Your task to perform on an android device: delete browsing data in the chrome app Image 0: 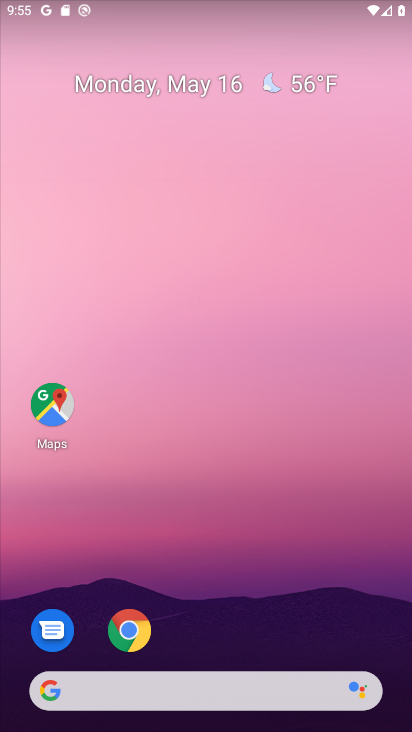
Step 0: click (128, 629)
Your task to perform on an android device: delete browsing data in the chrome app Image 1: 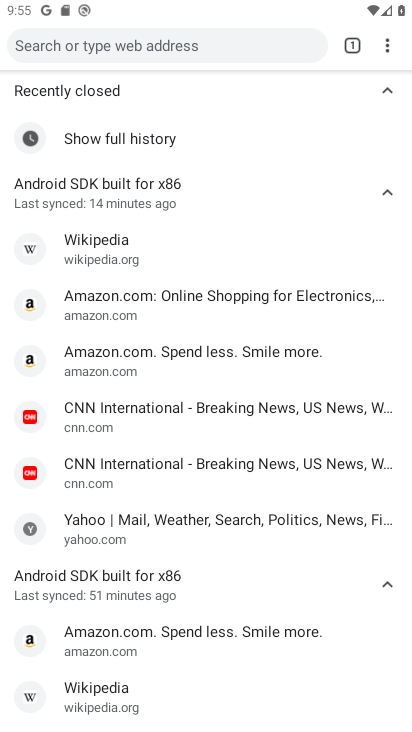
Step 1: click (385, 45)
Your task to perform on an android device: delete browsing data in the chrome app Image 2: 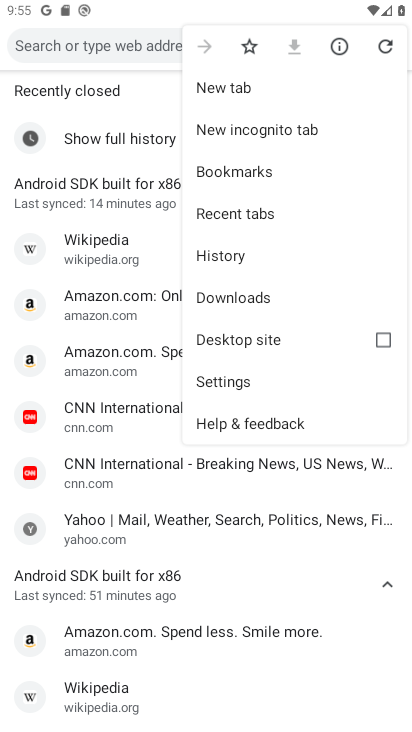
Step 2: click (229, 252)
Your task to perform on an android device: delete browsing data in the chrome app Image 3: 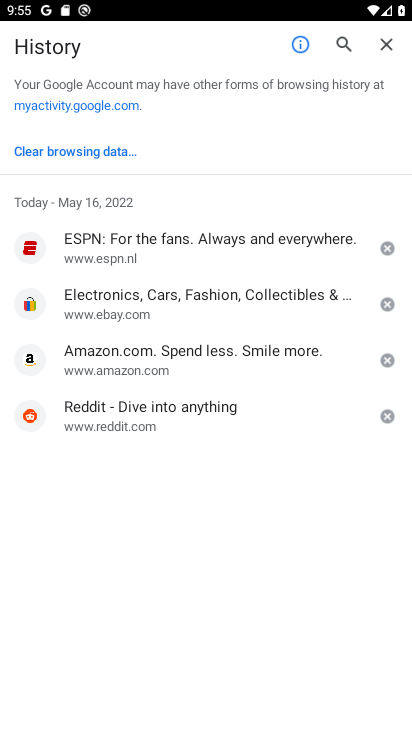
Step 3: click (120, 143)
Your task to perform on an android device: delete browsing data in the chrome app Image 4: 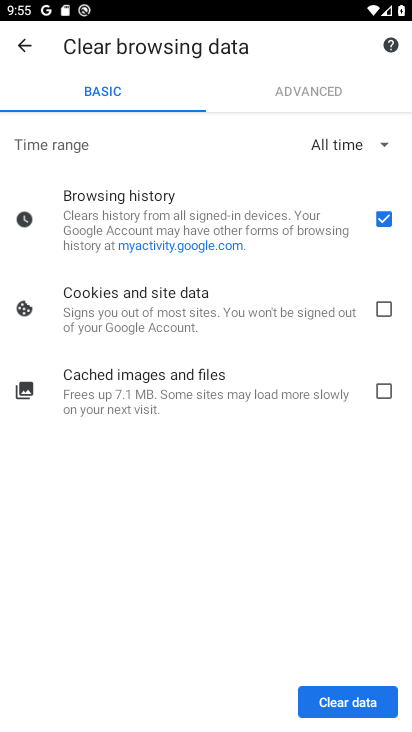
Step 4: click (383, 308)
Your task to perform on an android device: delete browsing data in the chrome app Image 5: 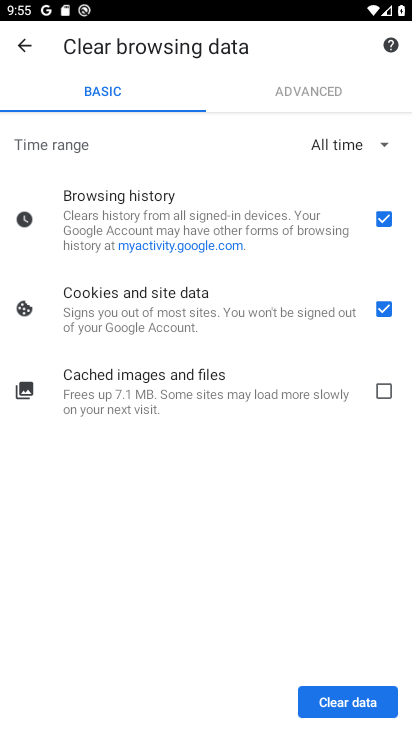
Step 5: click (383, 389)
Your task to perform on an android device: delete browsing data in the chrome app Image 6: 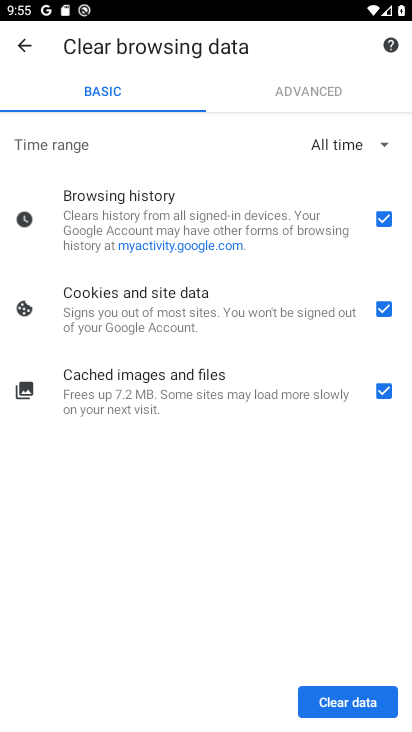
Step 6: click (359, 702)
Your task to perform on an android device: delete browsing data in the chrome app Image 7: 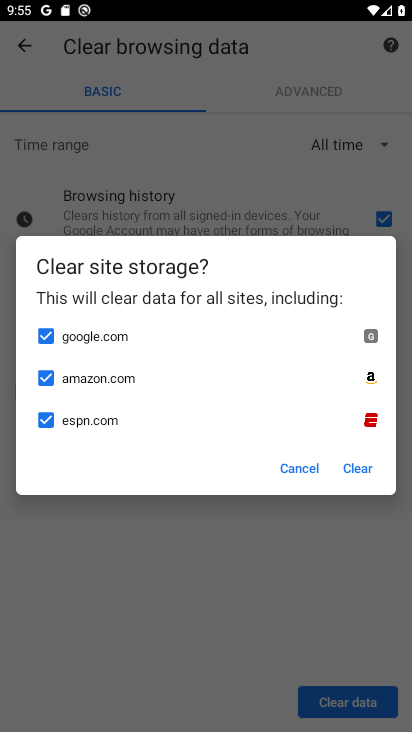
Step 7: click (356, 463)
Your task to perform on an android device: delete browsing data in the chrome app Image 8: 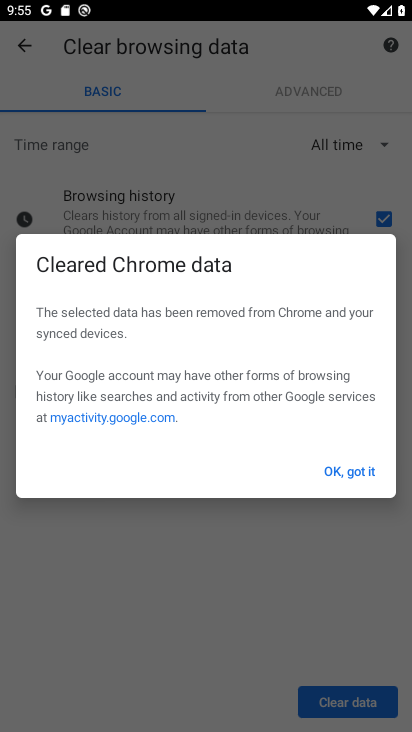
Step 8: click (356, 463)
Your task to perform on an android device: delete browsing data in the chrome app Image 9: 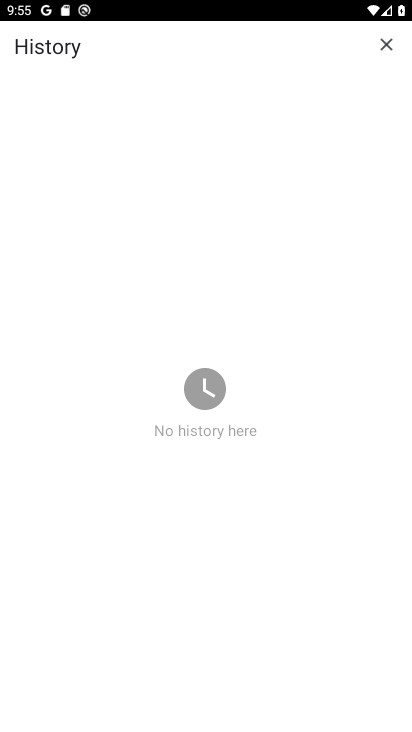
Step 9: task complete